Your task to perform on an android device: turn off location Image 0: 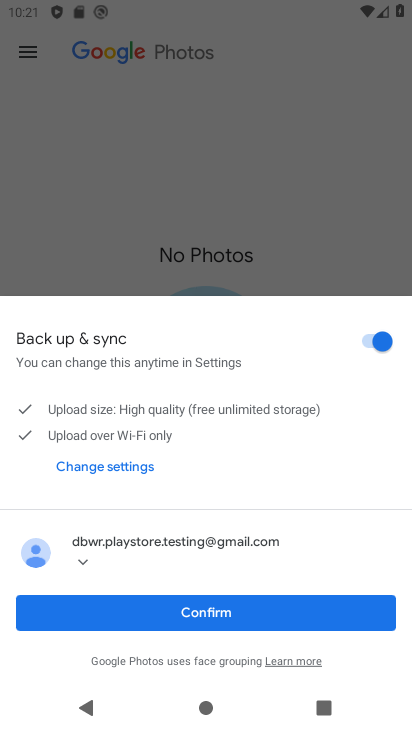
Step 0: press home button
Your task to perform on an android device: turn off location Image 1: 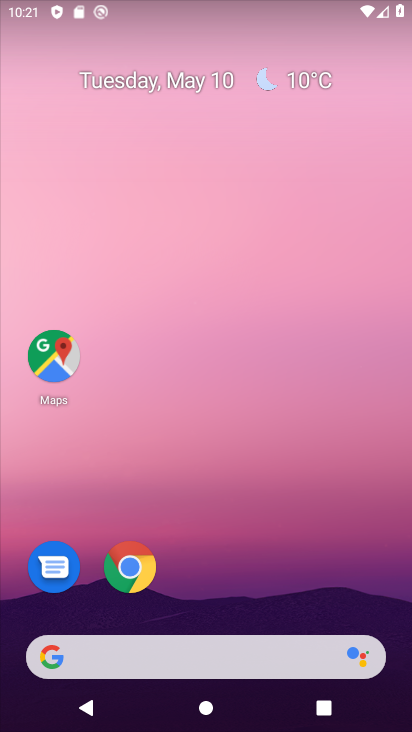
Step 1: drag from (280, 610) to (291, 8)
Your task to perform on an android device: turn off location Image 2: 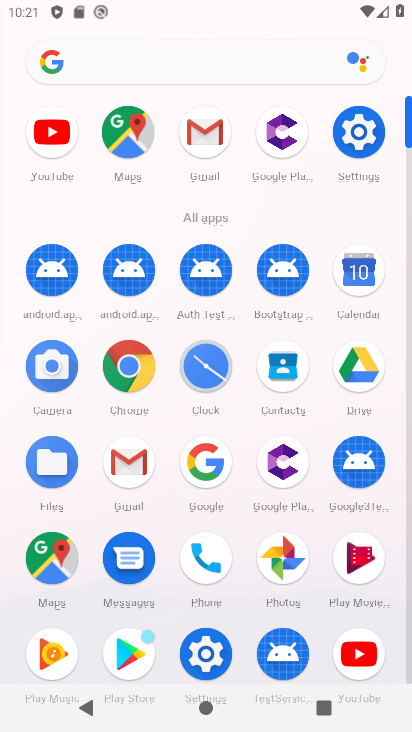
Step 2: click (372, 134)
Your task to perform on an android device: turn off location Image 3: 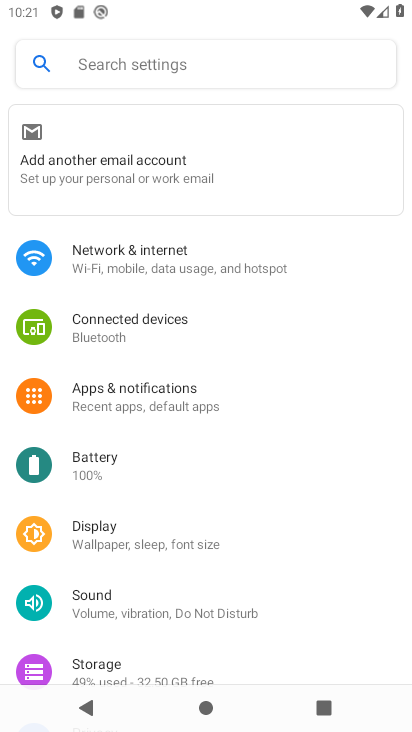
Step 3: drag from (194, 583) to (225, 355)
Your task to perform on an android device: turn off location Image 4: 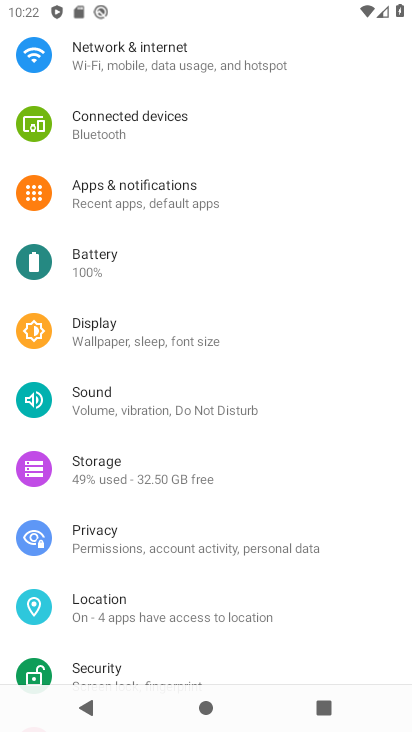
Step 4: click (85, 606)
Your task to perform on an android device: turn off location Image 5: 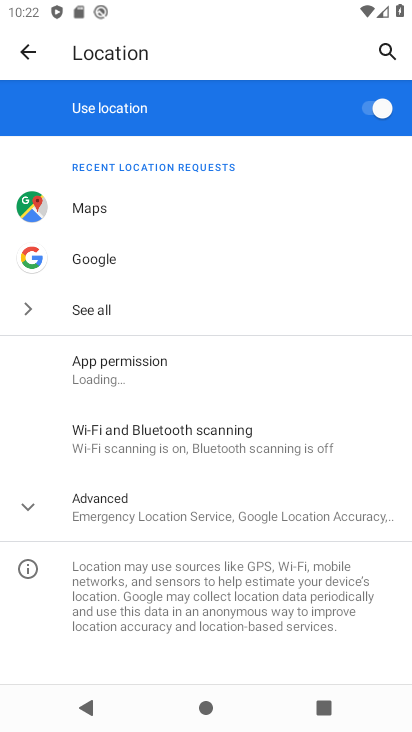
Step 5: click (383, 103)
Your task to perform on an android device: turn off location Image 6: 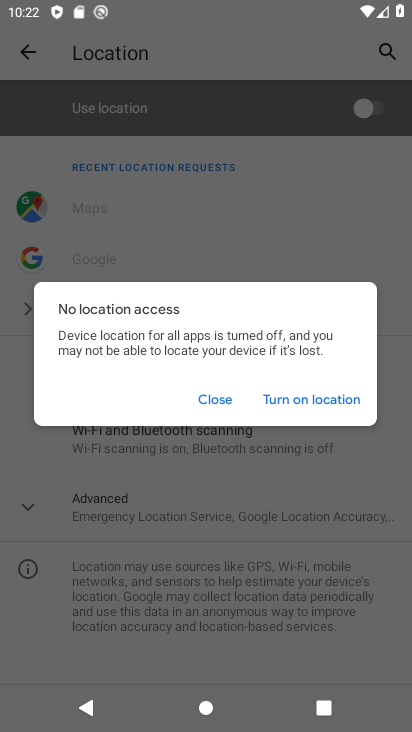
Step 6: click (223, 405)
Your task to perform on an android device: turn off location Image 7: 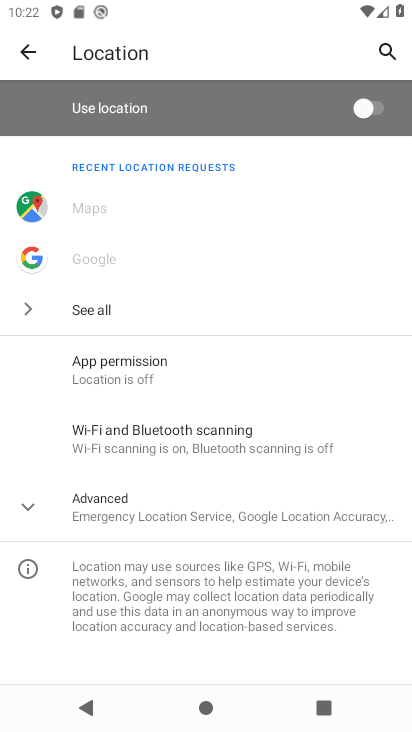
Step 7: task complete